Your task to perform on an android device: Show me the alarms in the clock app Image 0: 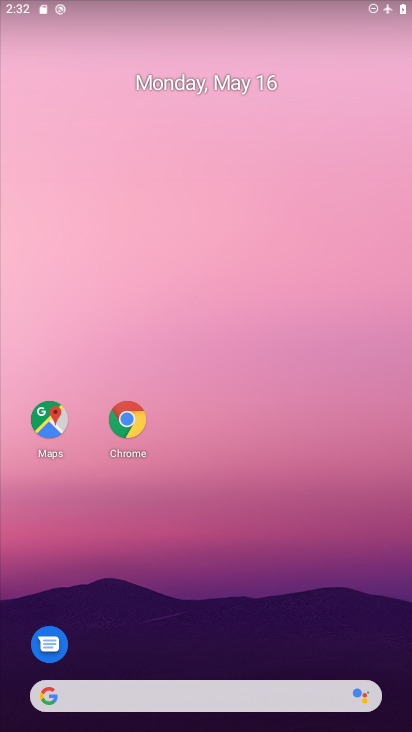
Step 0: drag from (197, 651) to (174, 168)
Your task to perform on an android device: Show me the alarms in the clock app Image 1: 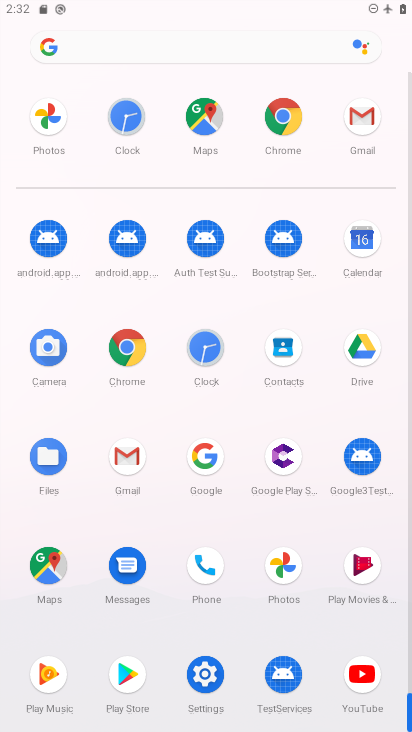
Step 1: click (205, 357)
Your task to perform on an android device: Show me the alarms in the clock app Image 2: 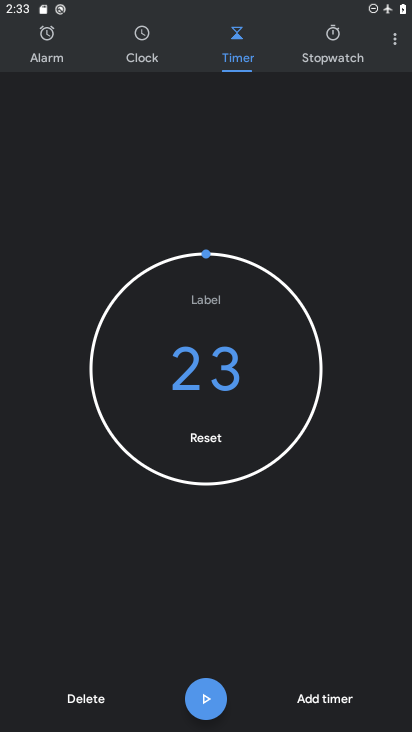
Step 2: click (319, 52)
Your task to perform on an android device: Show me the alarms in the clock app Image 3: 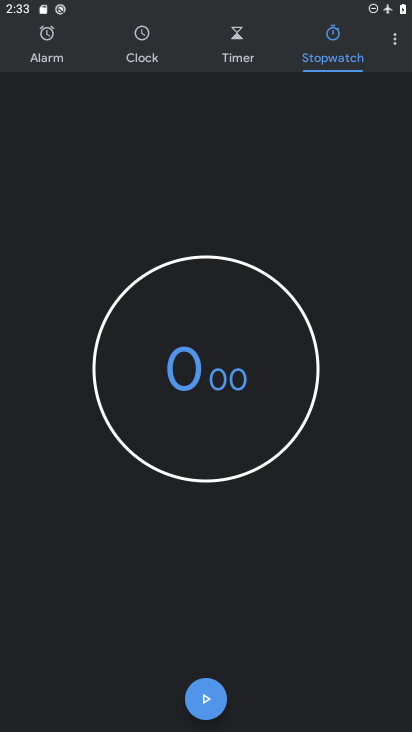
Step 3: click (51, 56)
Your task to perform on an android device: Show me the alarms in the clock app Image 4: 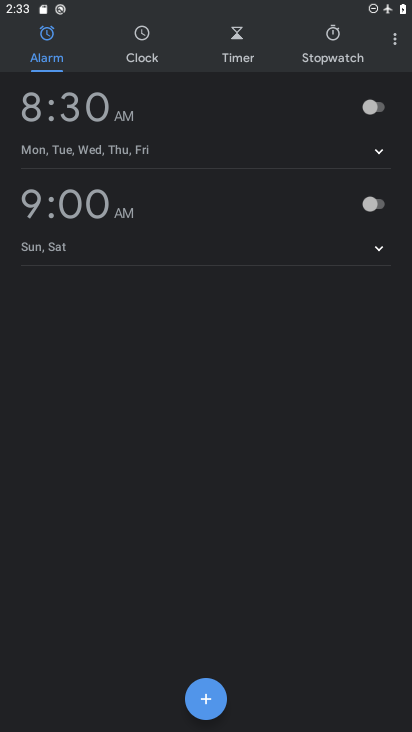
Step 4: task complete